Your task to perform on an android device: snooze an email in the gmail app Image 0: 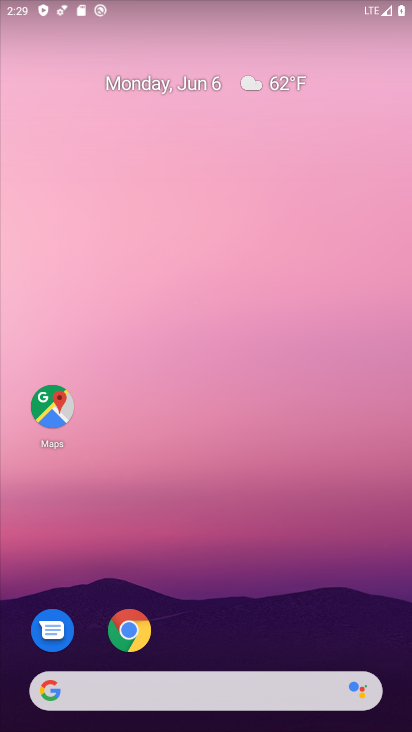
Step 0: drag from (316, 622) to (287, 298)
Your task to perform on an android device: snooze an email in the gmail app Image 1: 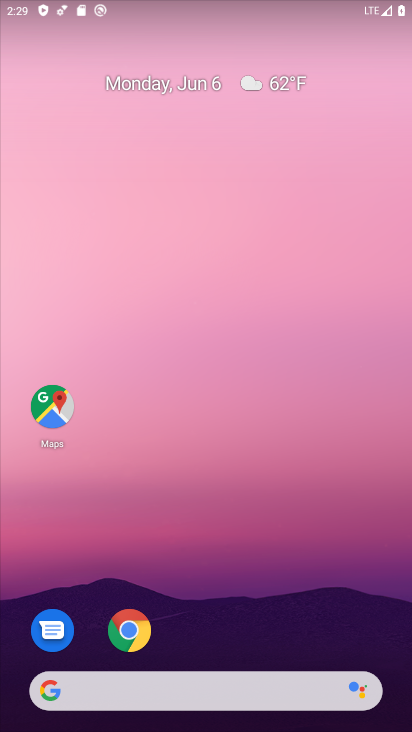
Step 1: drag from (350, 663) to (337, 187)
Your task to perform on an android device: snooze an email in the gmail app Image 2: 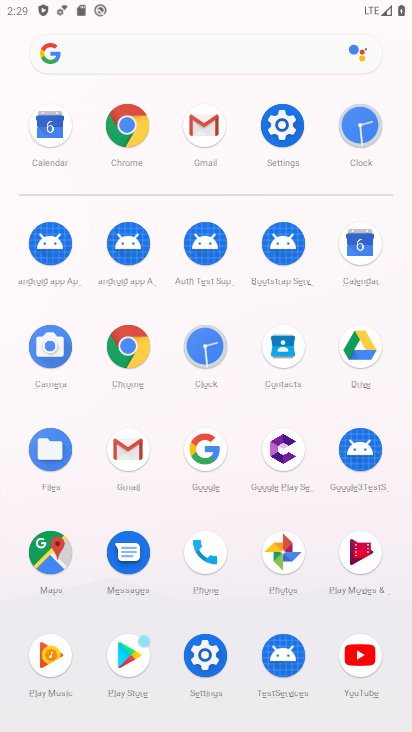
Step 2: click (194, 131)
Your task to perform on an android device: snooze an email in the gmail app Image 3: 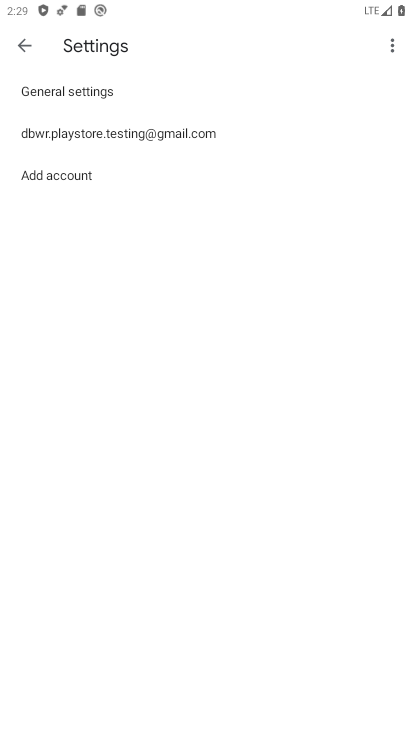
Step 3: click (17, 45)
Your task to perform on an android device: snooze an email in the gmail app Image 4: 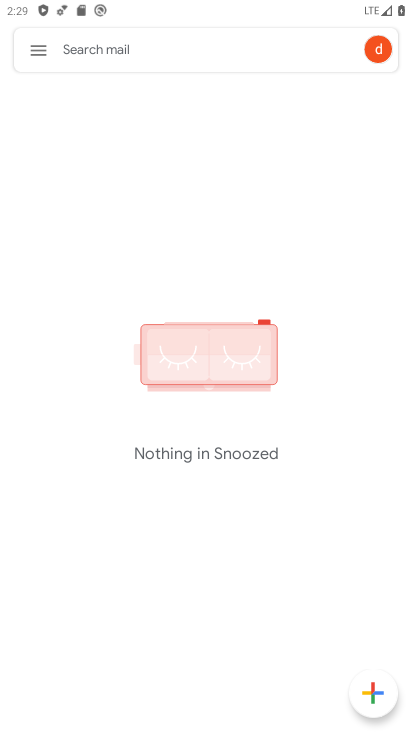
Step 4: task complete